Your task to perform on an android device: choose inbox layout in the gmail app Image 0: 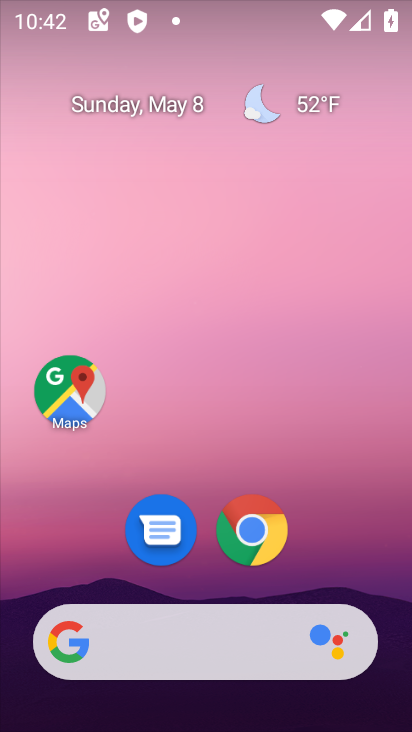
Step 0: drag from (352, 561) to (350, 234)
Your task to perform on an android device: choose inbox layout in the gmail app Image 1: 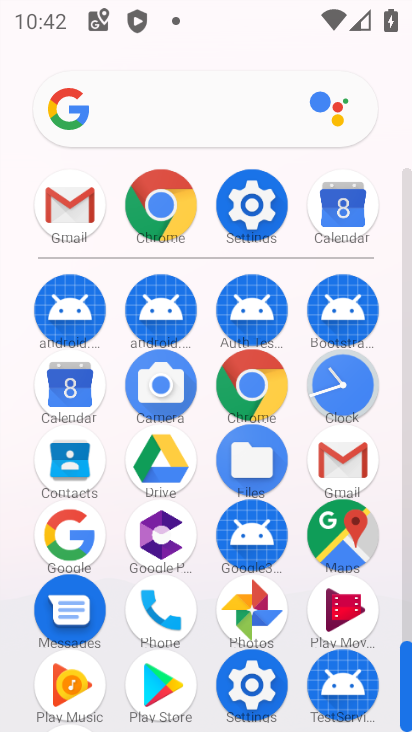
Step 1: click (329, 448)
Your task to perform on an android device: choose inbox layout in the gmail app Image 2: 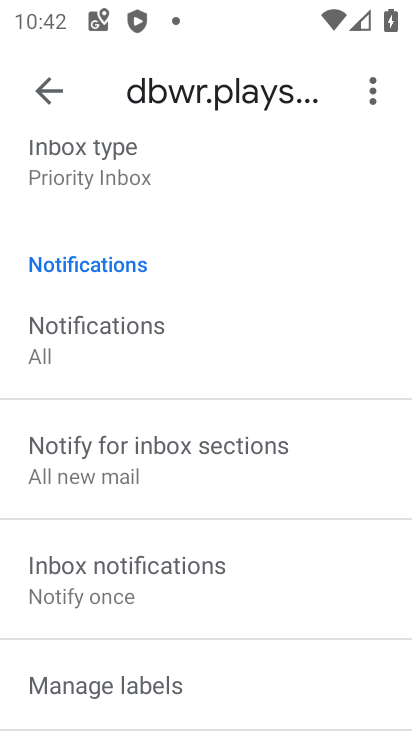
Step 2: click (84, 176)
Your task to perform on an android device: choose inbox layout in the gmail app Image 3: 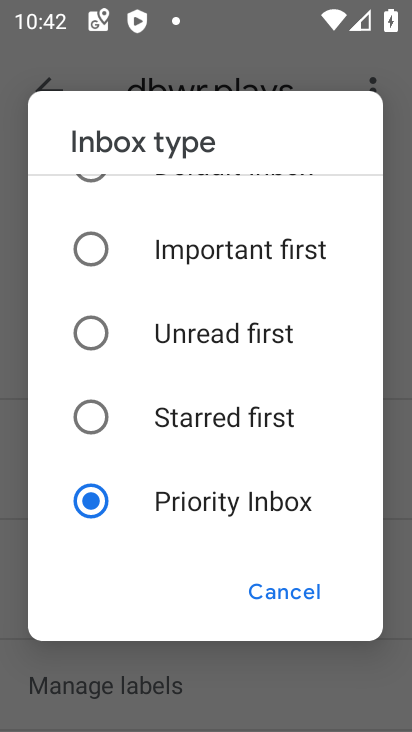
Step 3: drag from (109, 249) to (132, 518)
Your task to perform on an android device: choose inbox layout in the gmail app Image 4: 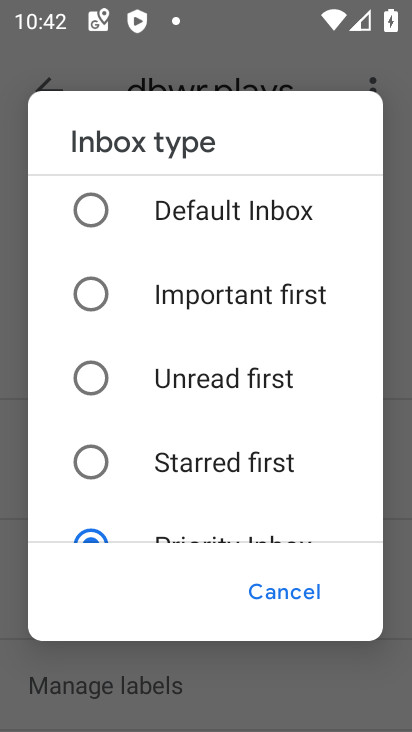
Step 4: click (79, 209)
Your task to perform on an android device: choose inbox layout in the gmail app Image 5: 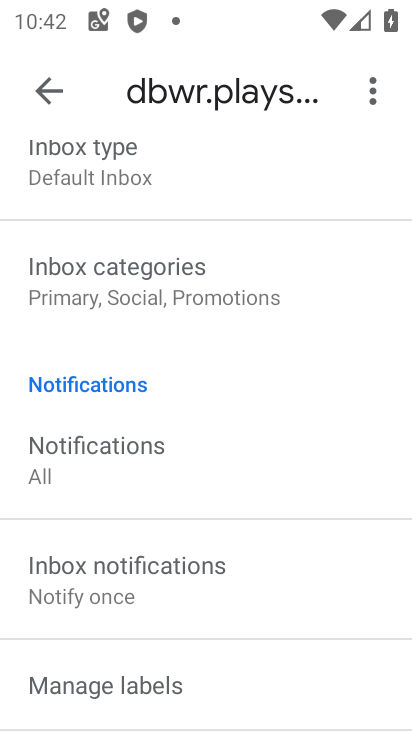
Step 5: task complete